Your task to perform on an android device: toggle location history Image 0: 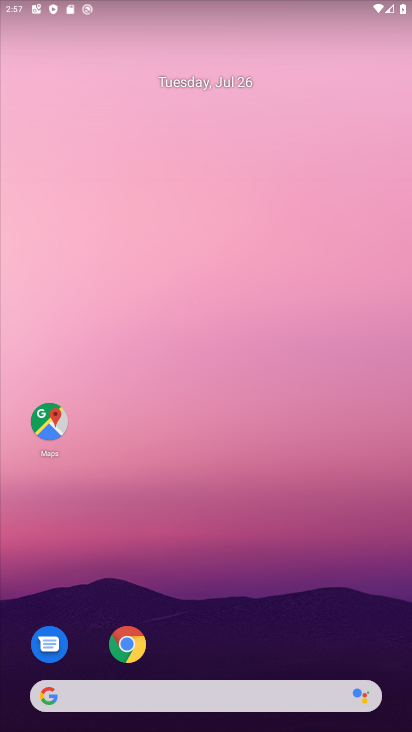
Step 0: drag from (174, 567) to (174, 349)
Your task to perform on an android device: toggle location history Image 1: 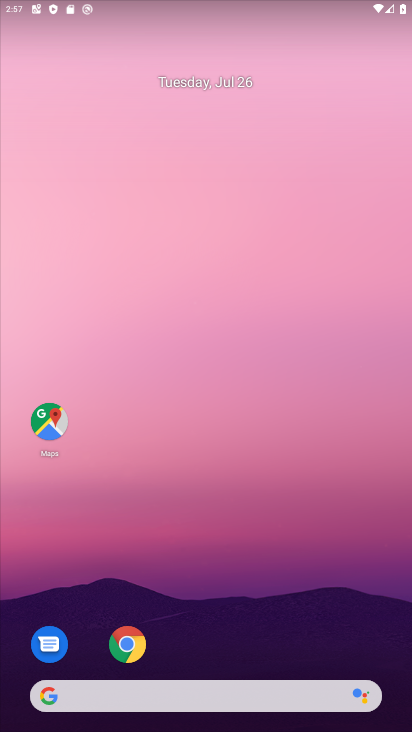
Step 1: drag from (224, 679) to (222, 315)
Your task to perform on an android device: toggle location history Image 2: 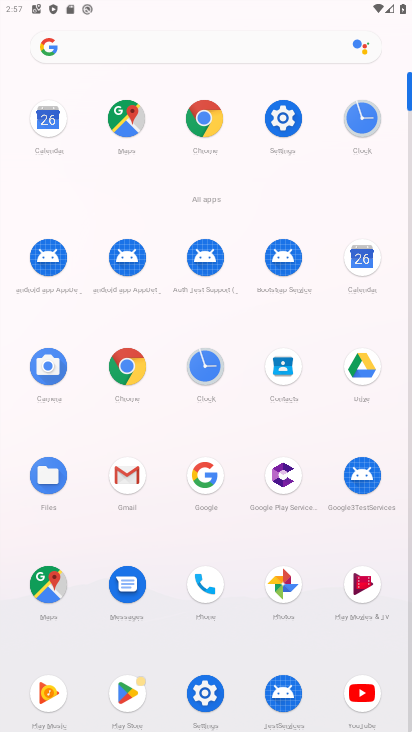
Step 2: click (279, 125)
Your task to perform on an android device: toggle location history Image 3: 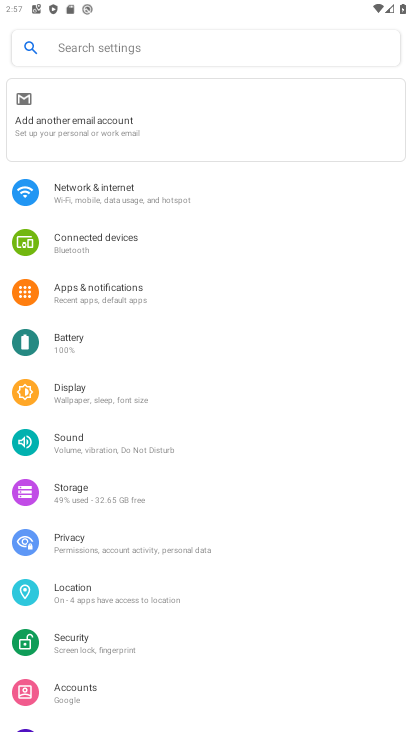
Step 3: click (96, 594)
Your task to perform on an android device: toggle location history Image 4: 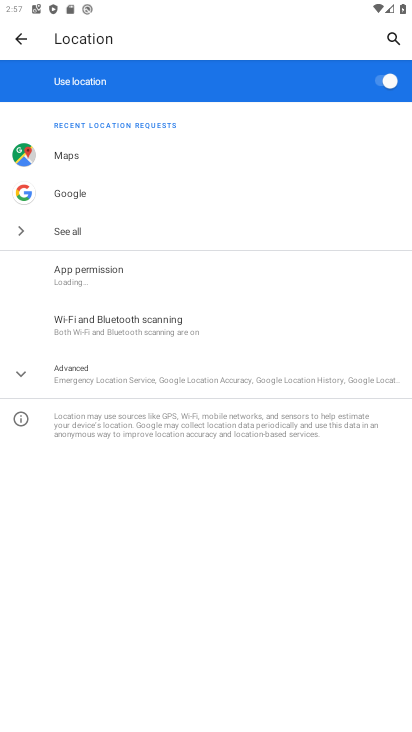
Step 4: click (70, 373)
Your task to perform on an android device: toggle location history Image 5: 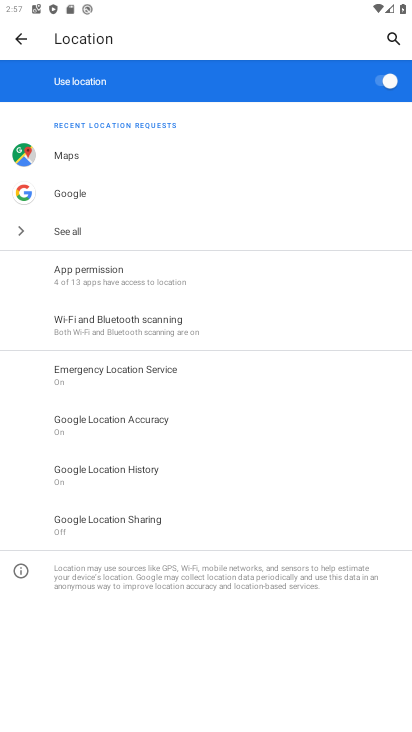
Step 5: click (119, 475)
Your task to perform on an android device: toggle location history Image 6: 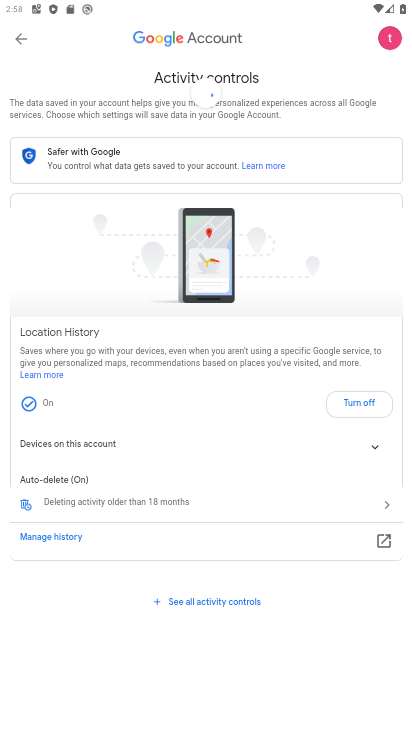
Step 6: click (367, 402)
Your task to perform on an android device: toggle location history Image 7: 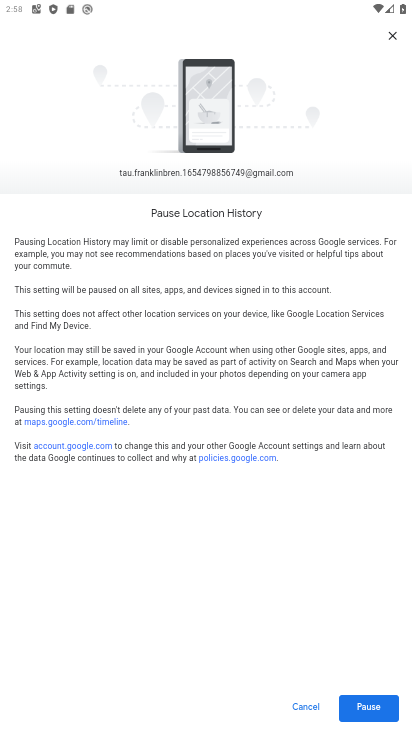
Step 7: click (362, 711)
Your task to perform on an android device: toggle location history Image 8: 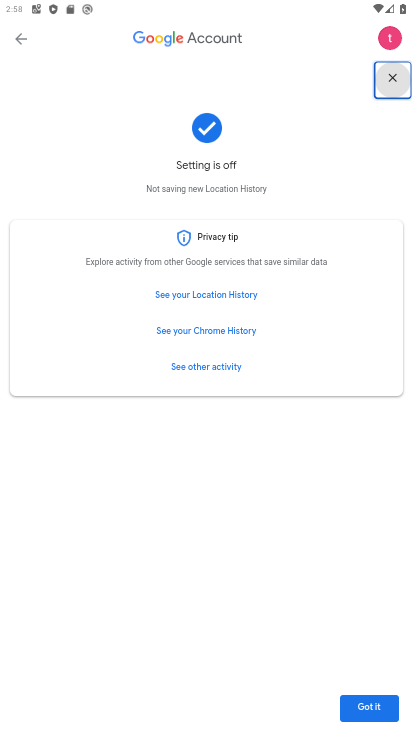
Step 8: click (362, 711)
Your task to perform on an android device: toggle location history Image 9: 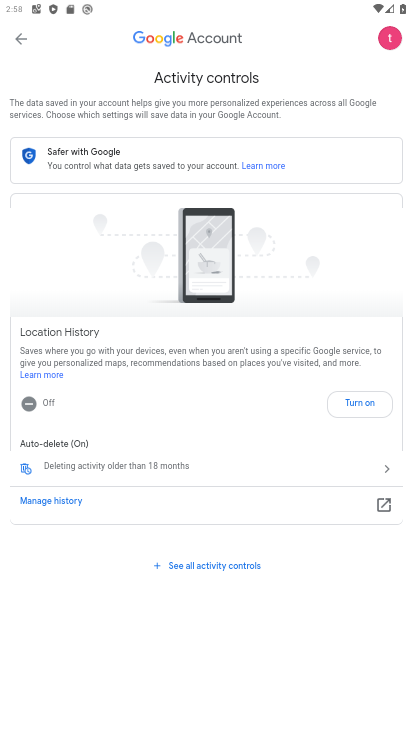
Step 9: task complete